Your task to perform on an android device: turn off javascript in the chrome app Image 0: 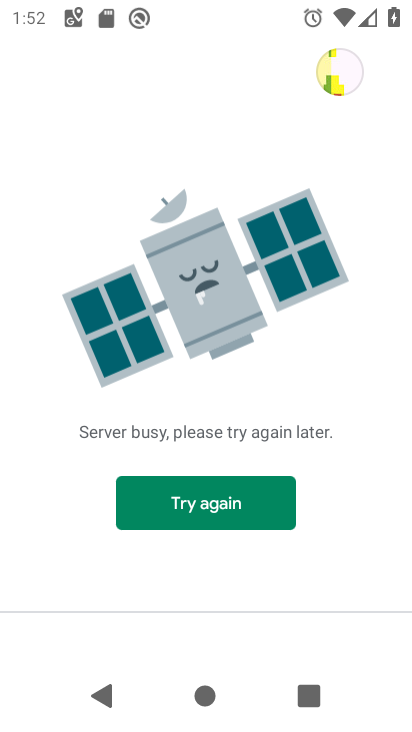
Step 0: press home button
Your task to perform on an android device: turn off javascript in the chrome app Image 1: 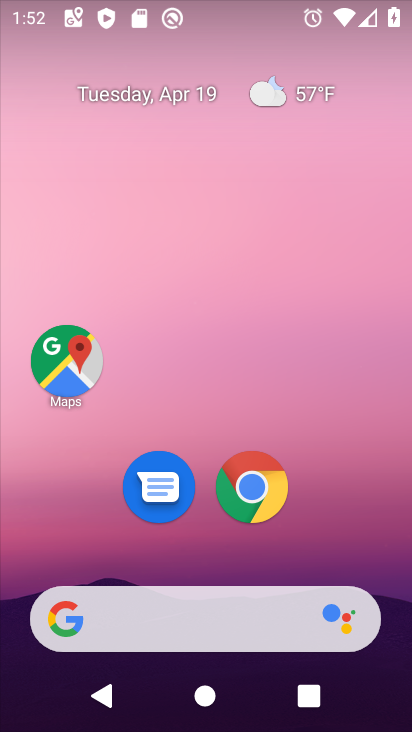
Step 1: drag from (369, 499) to (388, 132)
Your task to perform on an android device: turn off javascript in the chrome app Image 2: 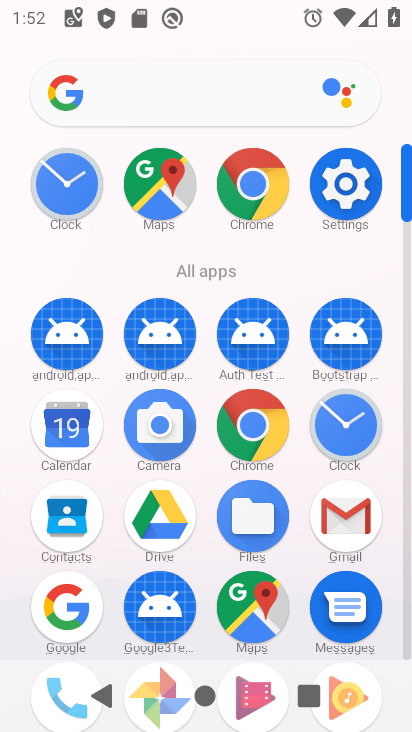
Step 2: click (242, 442)
Your task to perform on an android device: turn off javascript in the chrome app Image 3: 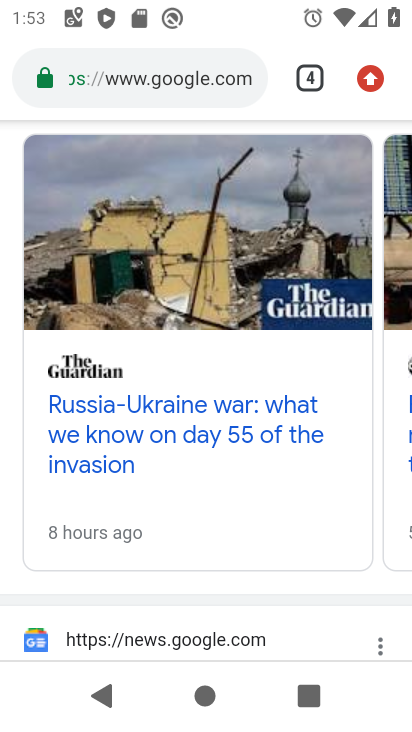
Step 3: click (373, 73)
Your task to perform on an android device: turn off javascript in the chrome app Image 4: 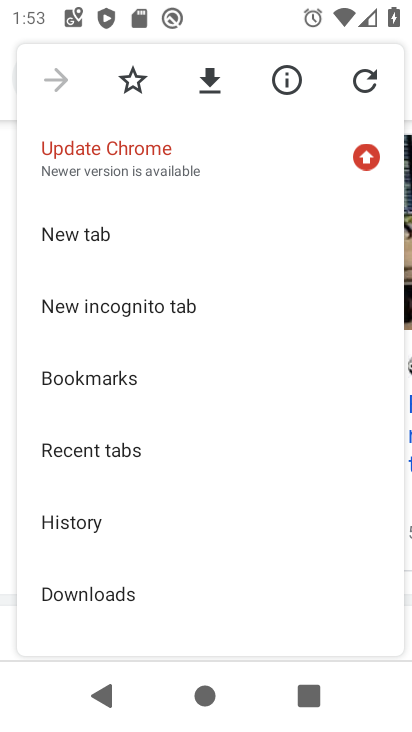
Step 4: drag from (253, 530) to (259, 238)
Your task to perform on an android device: turn off javascript in the chrome app Image 5: 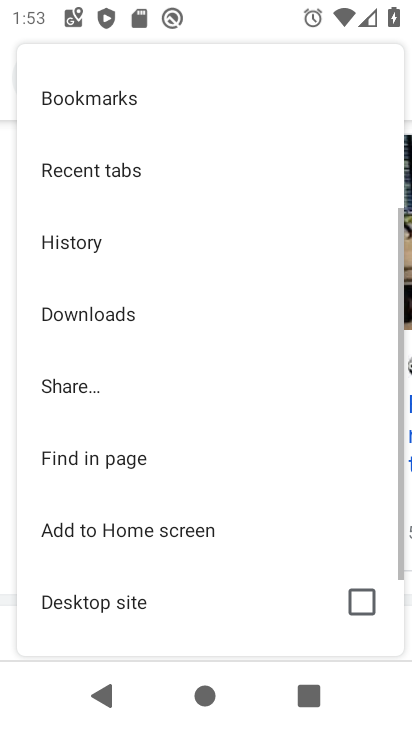
Step 5: drag from (208, 581) to (236, 276)
Your task to perform on an android device: turn off javascript in the chrome app Image 6: 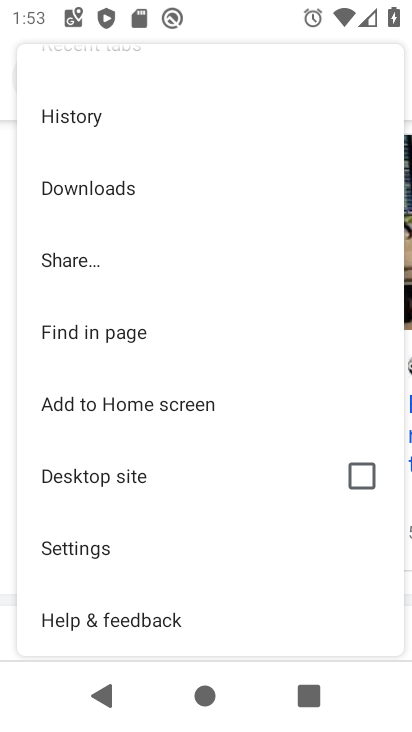
Step 6: click (85, 549)
Your task to perform on an android device: turn off javascript in the chrome app Image 7: 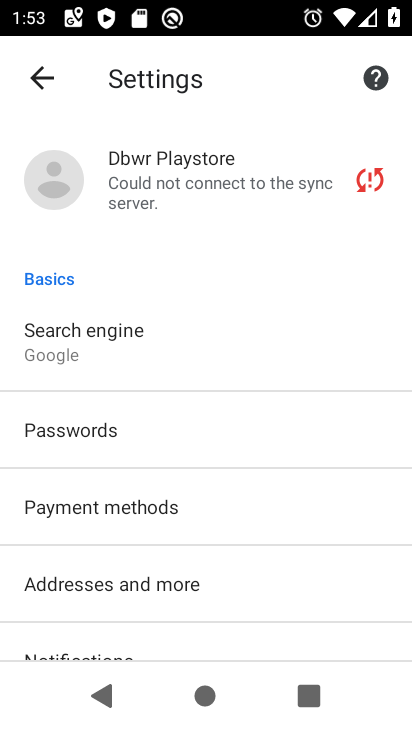
Step 7: drag from (284, 587) to (322, 311)
Your task to perform on an android device: turn off javascript in the chrome app Image 8: 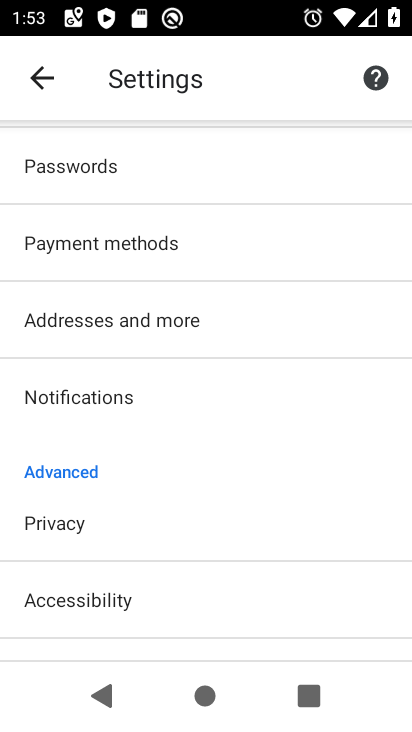
Step 8: drag from (282, 610) to (355, 294)
Your task to perform on an android device: turn off javascript in the chrome app Image 9: 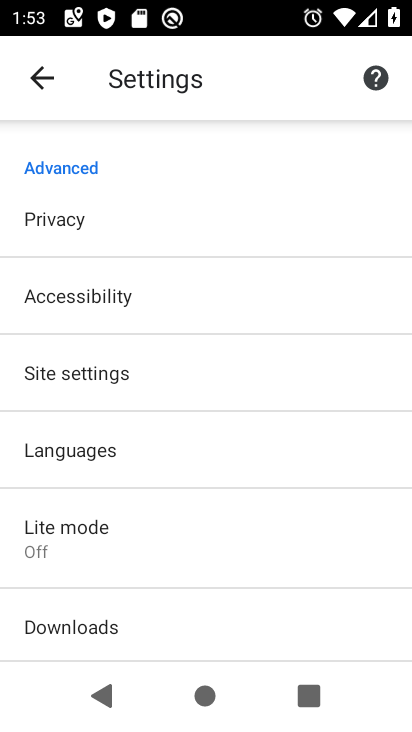
Step 9: click (93, 375)
Your task to perform on an android device: turn off javascript in the chrome app Image 10: 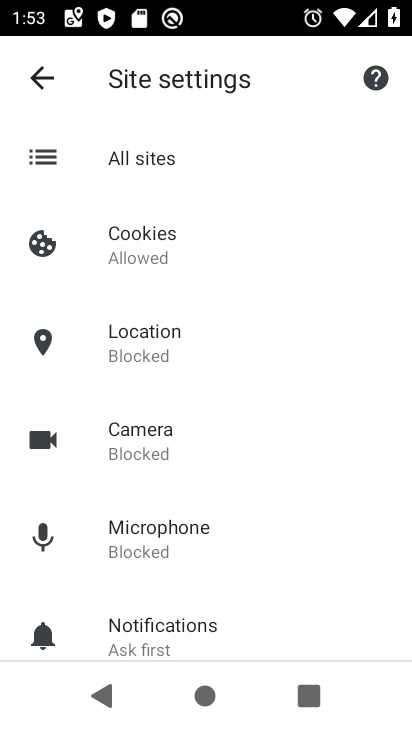
Step 10: drag from (246, 599) to (277, 355)
Your task to perform on an android device: turn off javascript in the chrome app Image 11: 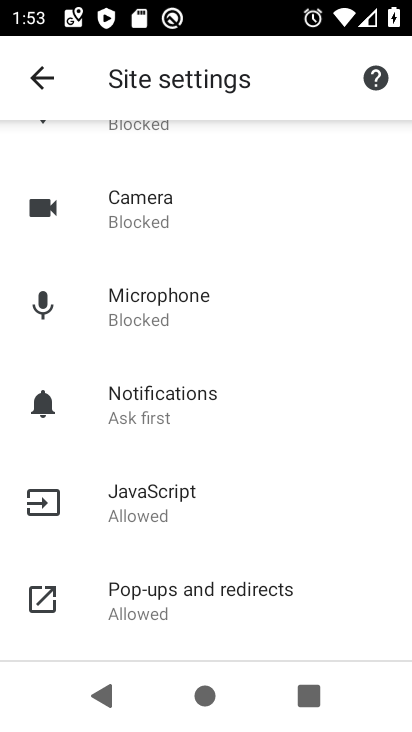
Step 11: click (186, 496)
Your task to perform on an android device: turn off javascript in the chrome app Image 12: 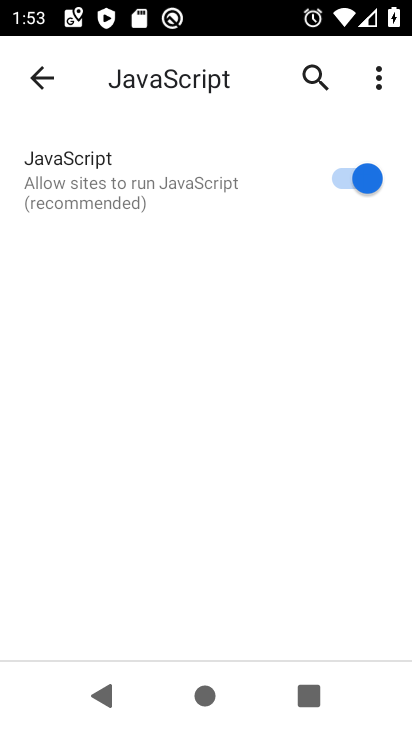
Step 12: click (343, 185)
Your task to perform on an android device: turn off javascript in the chrome app Image 13: 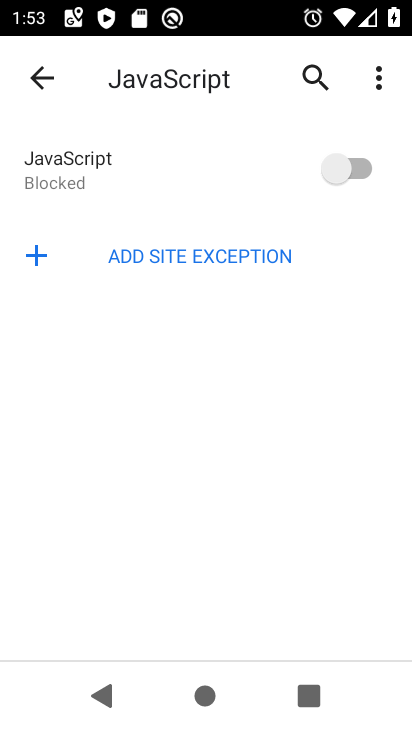
Step 13: task complete